Your task to perform on an android device: Open notification settings Image 0: 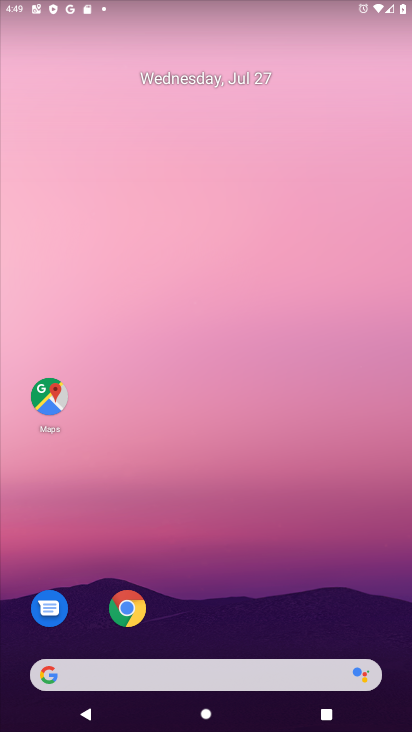
Step 0: drag from (223, 652) to (167, 176)
Your task to perform on an android device: Open notification settings Image 1: 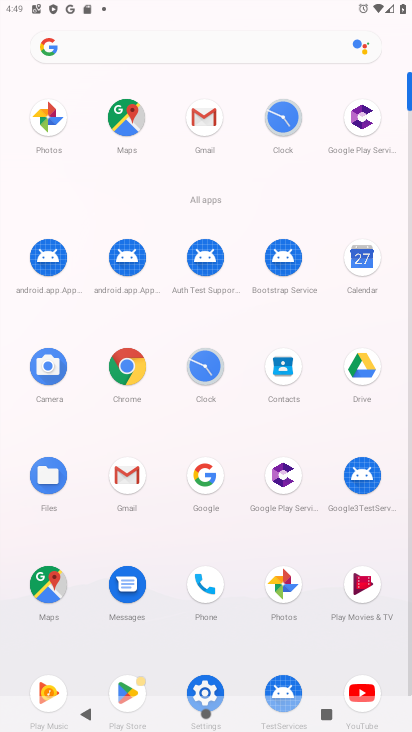
Step 1: click (193, 683)
Your task to perform on an android device: Open notification settings Image 2: 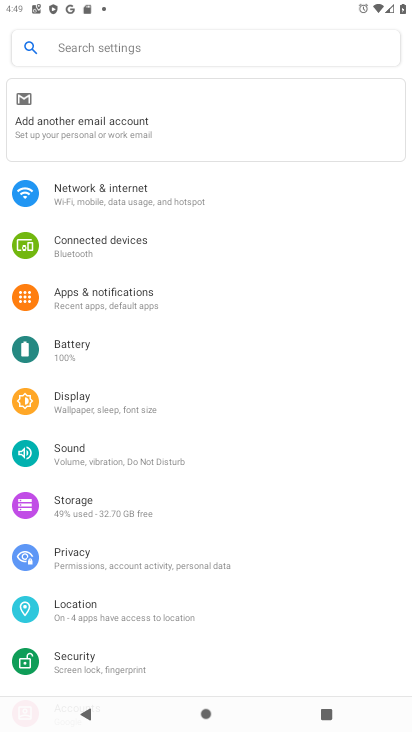
Step 2: click (87, 303)
Your task to perform on an android device: Open notification settings Image 3: 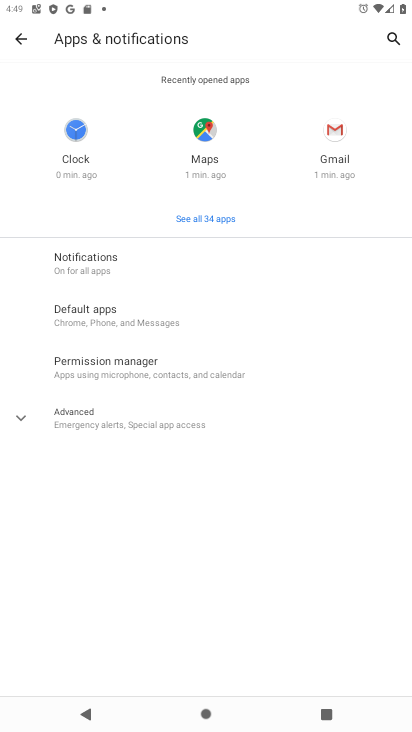
Step 3: click (98, 260)
Your task to perform on an android device: Open notification settings Image 4: 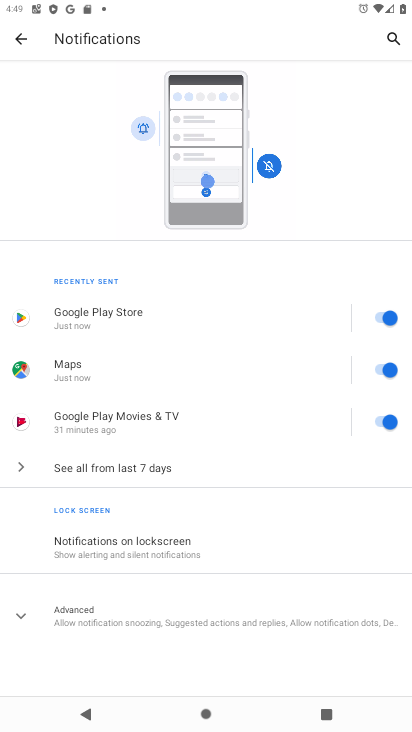
Step 4: task complete